Your task to perform on an android device: open chrome and create a bookmark for the current page Image 0: 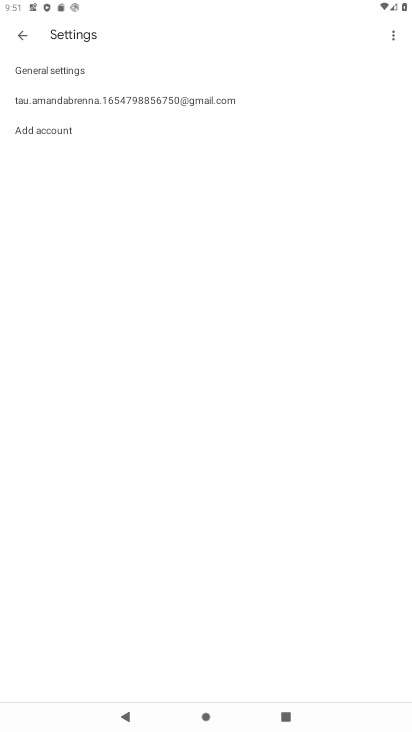
Step 0: press home button
Your task to perform on an android device: open chrome and create a bookmark for the current page Image 1: 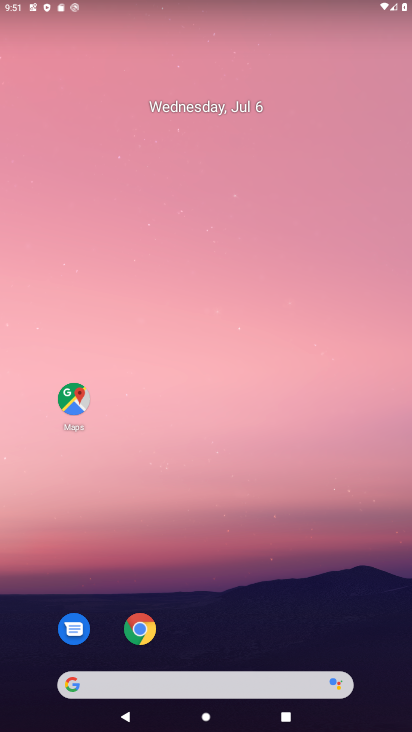
Step 1: drag from (259, 659) to (200, 185)
Your task to perform on an android device: open chrome and create a bookmark for the current page Image 2: 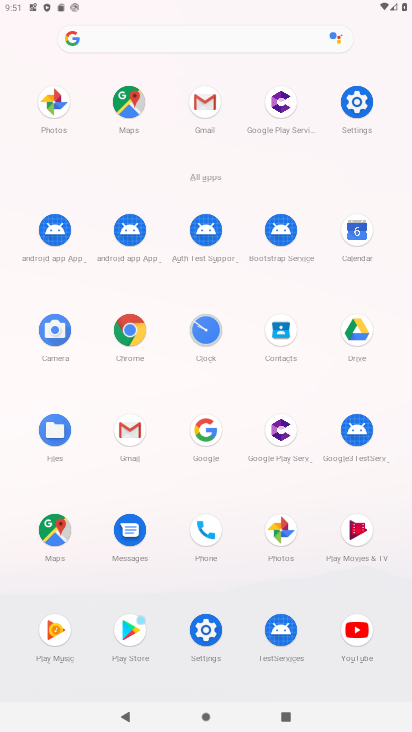
Step 2: click (134, 333)
Your task to perform on an android device: open chrome and create a bookmark for the current page Image 3: 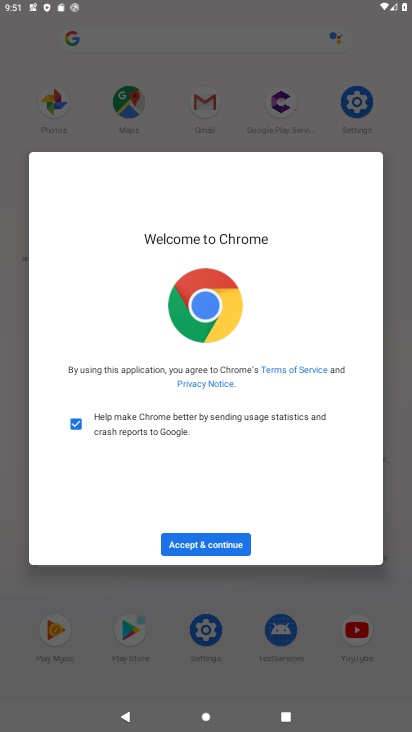
Step 3: click (202, 537)
Your task to perform on an android device: open chrome and create a bookmark for the current page Image 4: 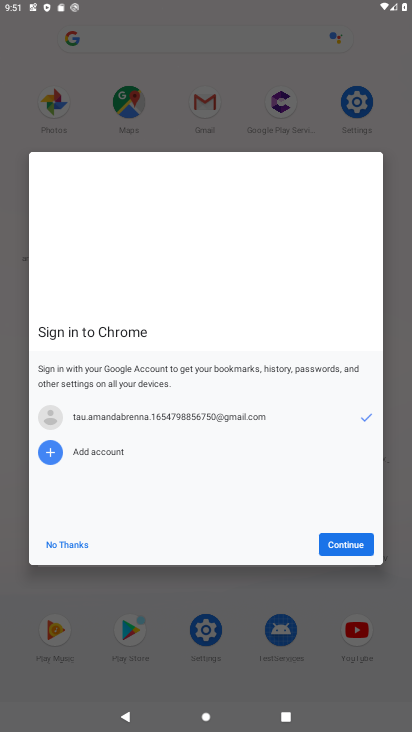
Step 4: click (375, 548)
Your task to perform on an android device: open chrome and create a bookmark for the current page Image 5: 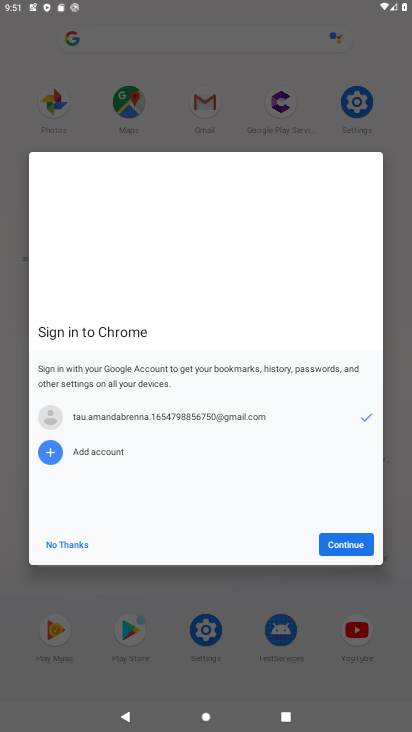
Step 5: click (340, 547)
Your task to perform on an android device: open chrome and create a bookmark for the current page Image 6: 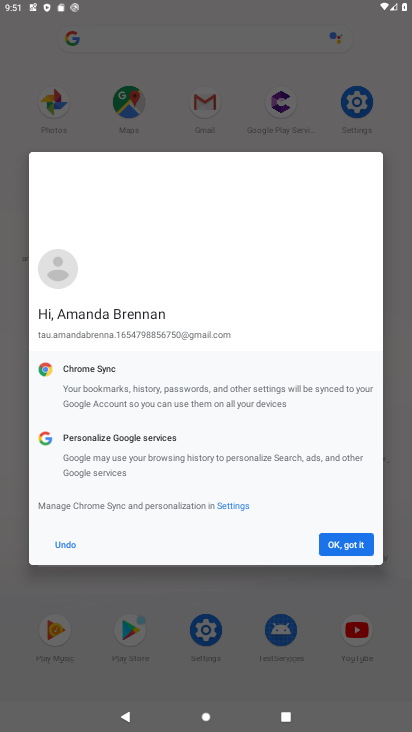
Step 6: click (342, 543)
Your task to perform on an android device: open chrome and create a bookmark for the current page Image 7: 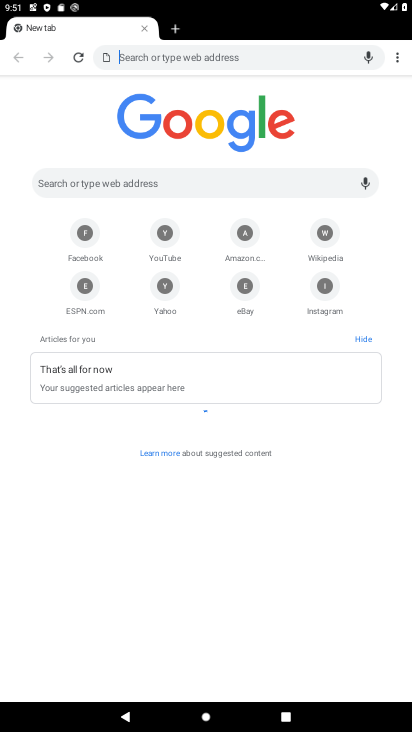
Step 7: click (397, 62)
Your task to perform on an android device: open chrome and create a bookmark for the current page Image 8: 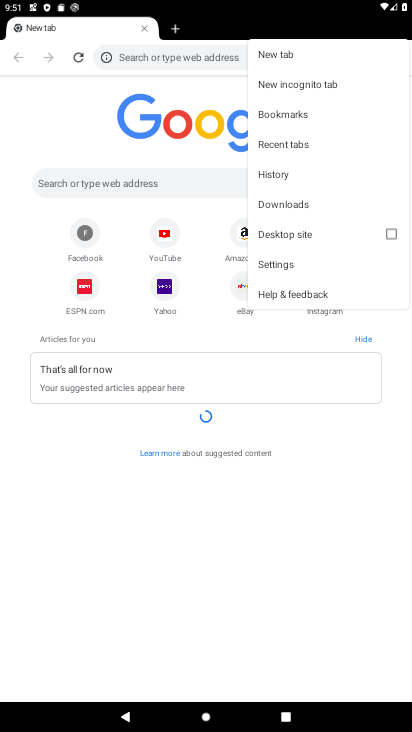
Step 8: click (274, 114)
Your task to perform on an android device: open chrome and create a bookmark for the current page Image 9: 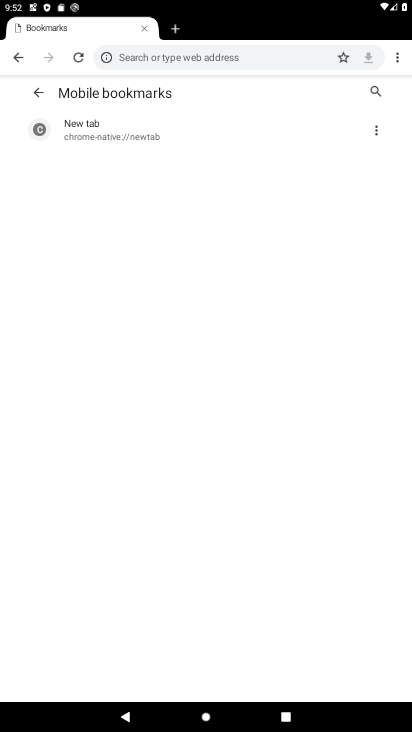
Step 9: task complete